Your task to perform on an android device: turn on the 24-hour format for clock Image 0: 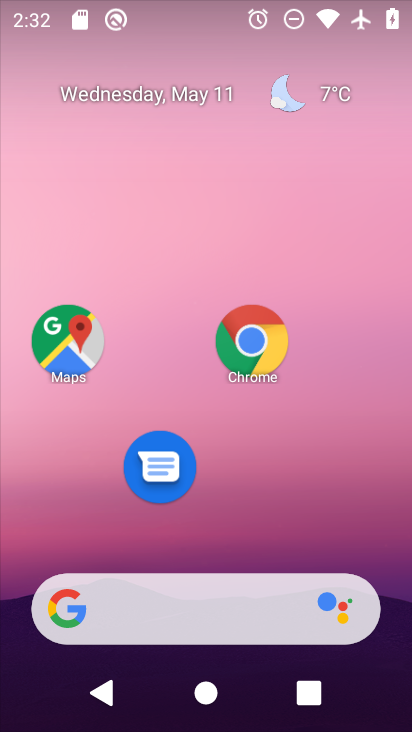
Step 0: drag from (152, 614) to (259, 204)
Your task to perform on an android device: turn on the 24-hour format for clock Image 1: 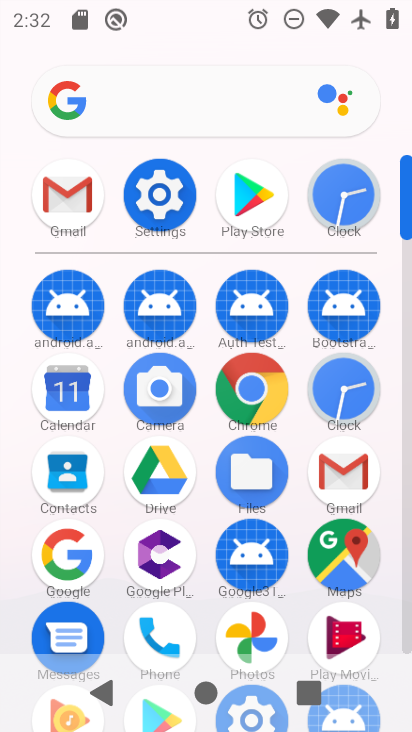
Step 1: click (358, 209)
Your task to perform on an android device: turn on the 24-hour format for clock Image 2: 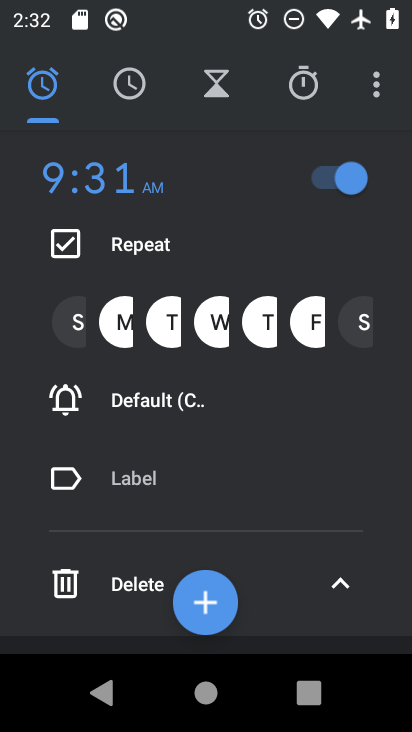
Step 2: click (376, 86)
Your task to perform on an android device: turn on the 24-hour format for clock Image 3: 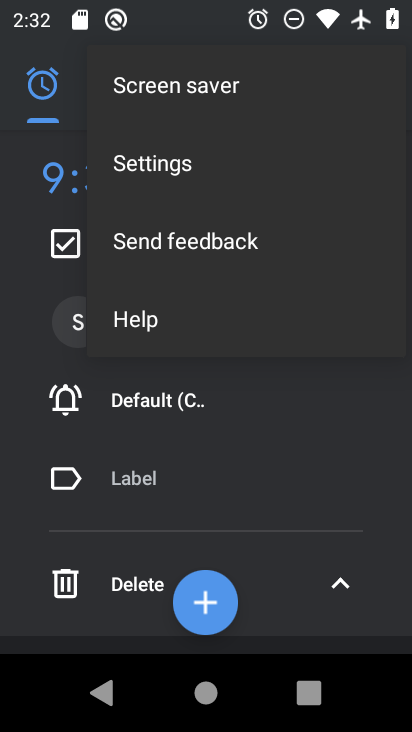
Step 3: click (182, 168)
Your task to perform on an android device: turn on the 24-hour format for clock Image 4: 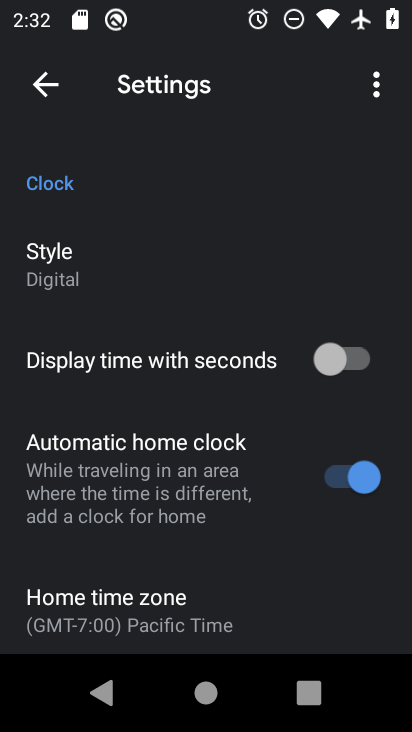
Step 4: drag from (213, 532) to (335, 176)
Your task to perform on an android device: turn on the 24-hour format for clock Image 5: 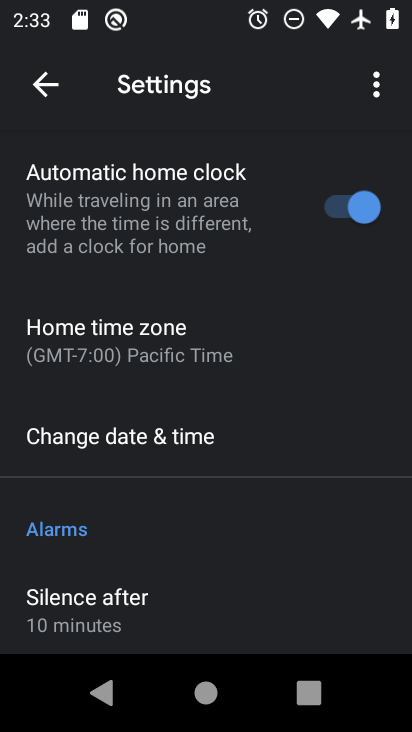
Step 5: drag from (273, 492) to (342, 292)
Your task to perform on an android device: turn on the 24-hour format for clock Image 6: 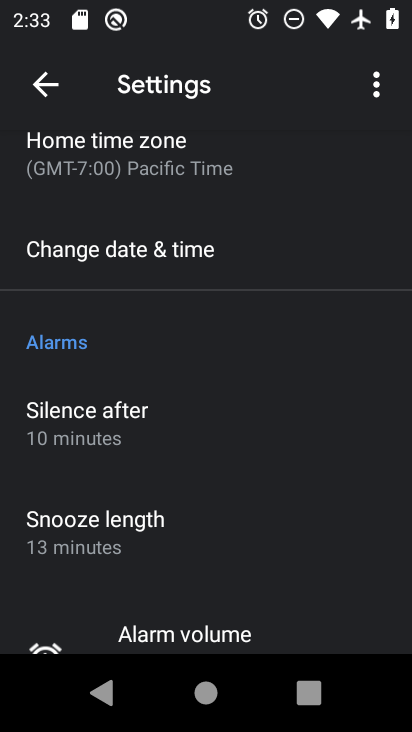
Step 6: click (173, 252)
Your task to perform on an android device: turn on the 24-hour format for clock Image 7: 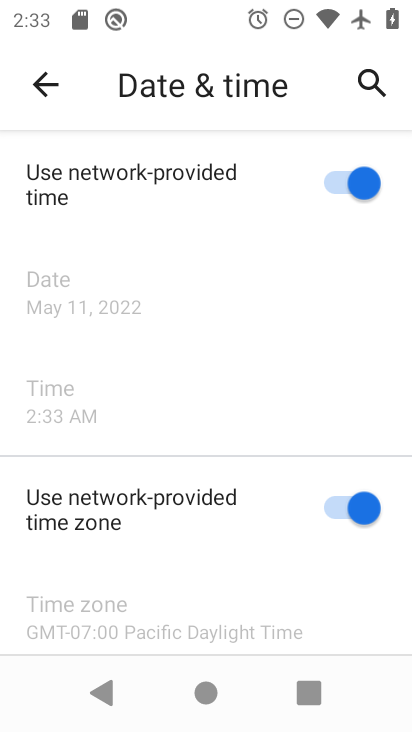
Step 7: drag from (199, 523) to (303, 304)
Your task to perform on an android device: turn on the 24-hour format for clock Image 8: 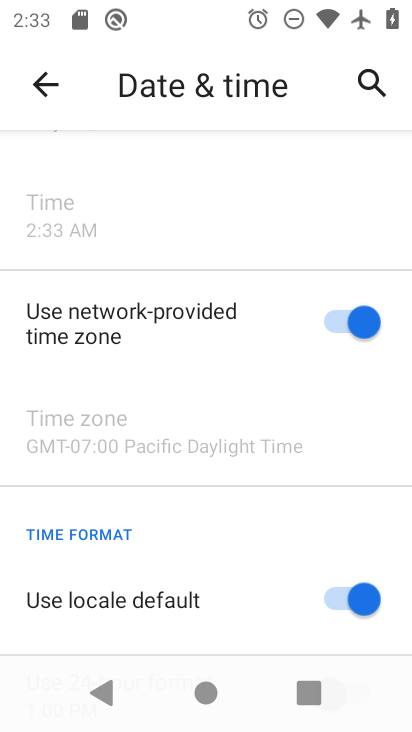
Step 8: drag from (247, 562) to (355, 225)
Your task to perform on an android device: turn on the 24-hour format for clock Image 9: 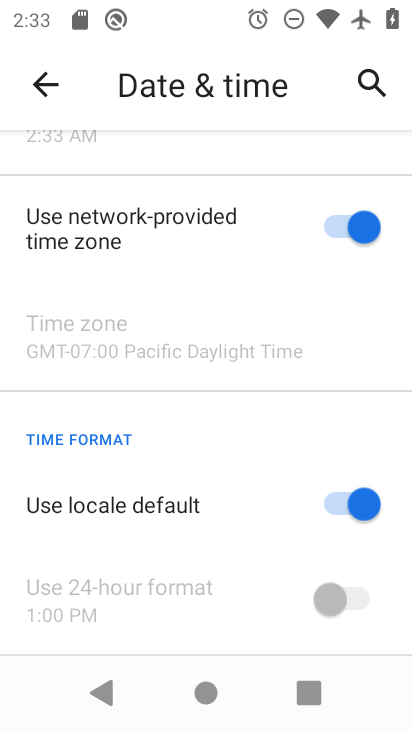
Step 9: click (337, 505)
Your task to perform on an android device: turn on the 24-hour format for clock Image 10: 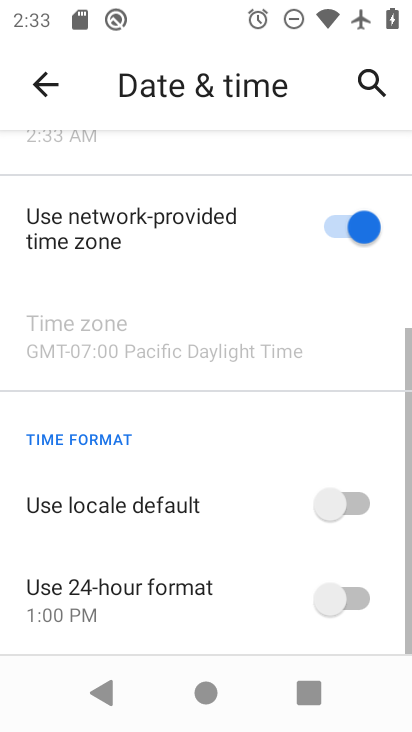
Step 10: click (360, 593)
Your task to perform on an android device: turn on the 24-hour format for clock Image 11: 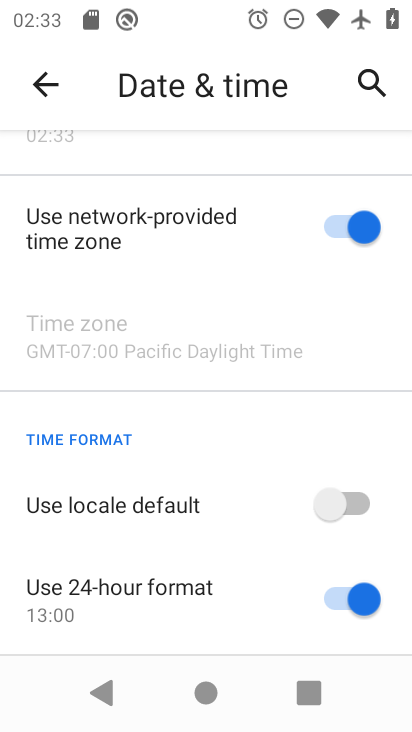
Step 11: task complete